Your task to perform on an android device: What's on my calendar today? Image 0: 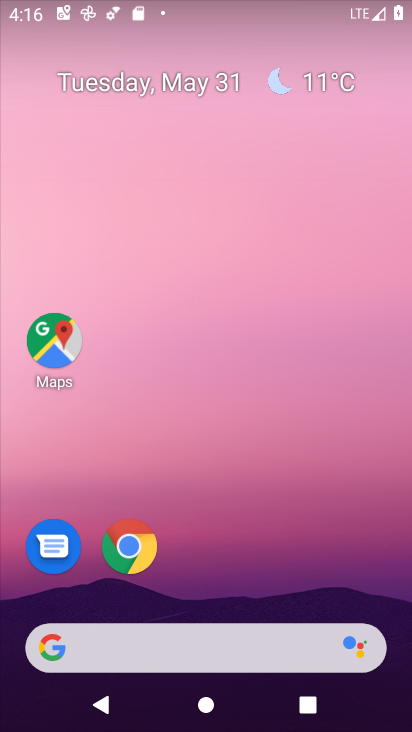
Step 0: click (129, 78)
Your task to perform on an android device: What's on my calendar today? Image 1: 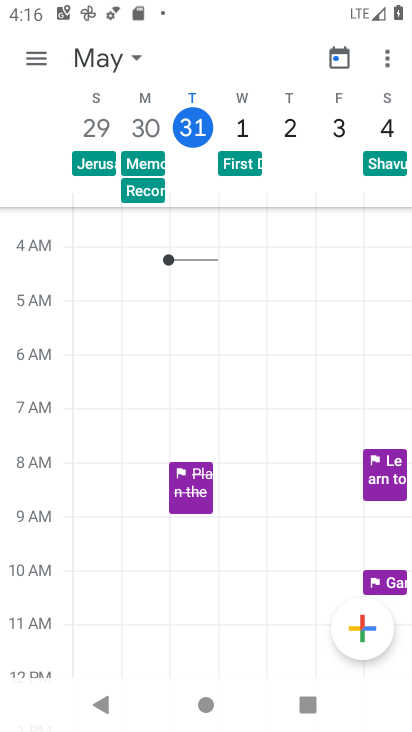
Step 1: click (0, 219)
Your task to perform on an android device: What's on my calendar today? Image 2: 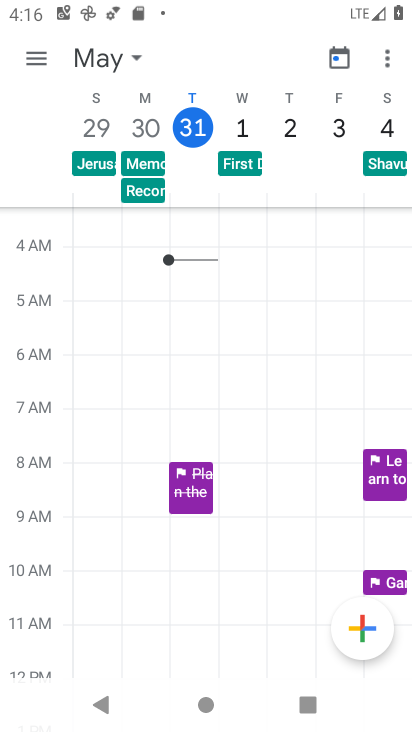
Step 2: task complete